Your task to perform on an android device: snooze an email in the gmail app Image 0: 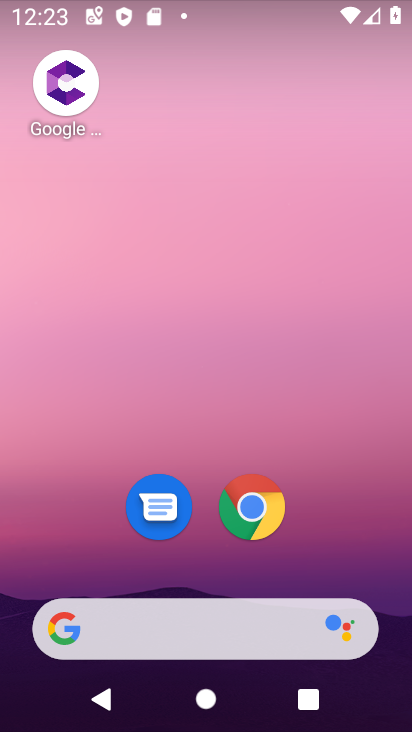
Step 0: drag from (209, 566) to (166, 143)
Your task to perform on an android device: snooze an email in the gmail app Image 1: 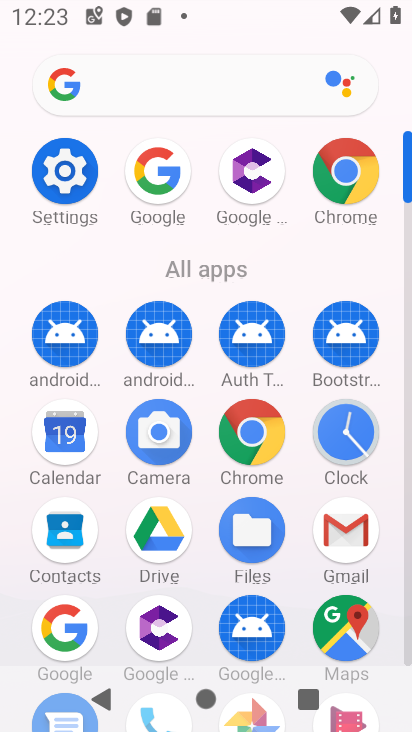
Step 1: click (339, 525)
Your task to perform on an android device: snooze an email in the gmail app Image 2: 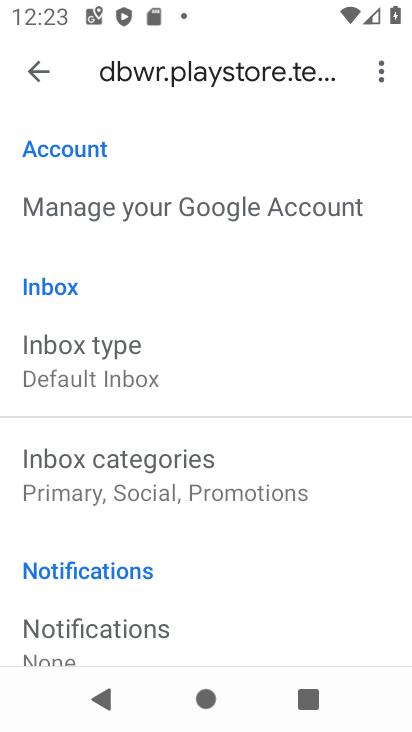
Step 2: click (25, 69)
Your task to perform on an android device: snooze an email in the gmail app Image 3: 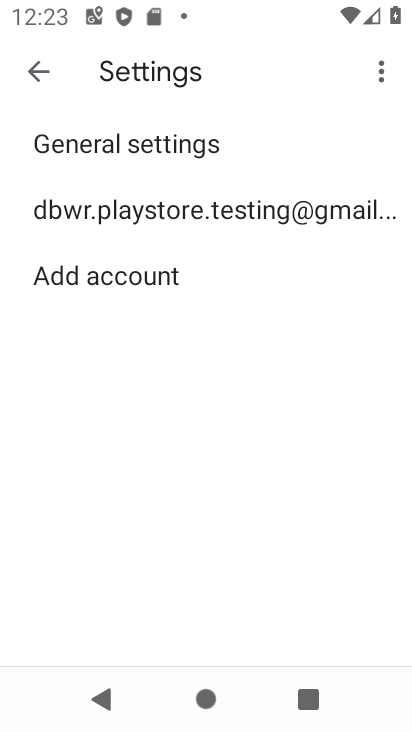
Step 3: click (46, 69)
Your task to perform on an android device: snooze an email in the gmail app Image 4: 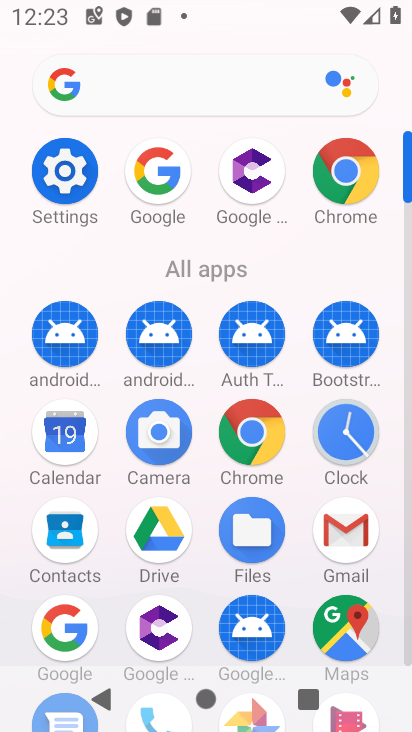
Step 4: click (348, 516)
Your task to perform on an android device: snooze an email in the gmail app Image 5: 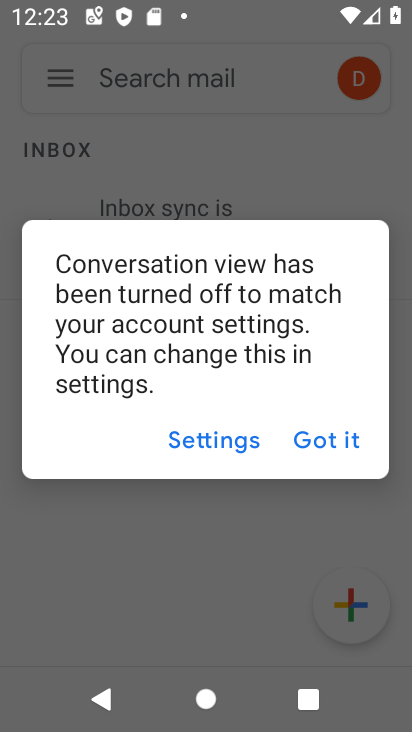
Step 5: click (317, 426)
Your task to perform on an android device: snooze an email in the gmail app Image 6: 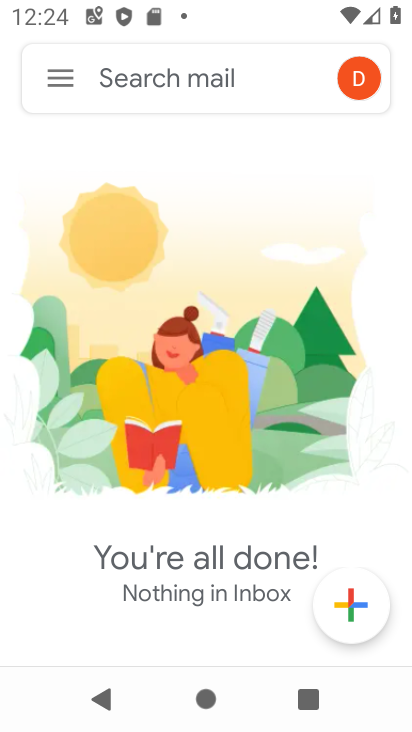
Step 6: click (54, 82)
Your task to perform on an android device: snooze an email in the gmail app Image 7: 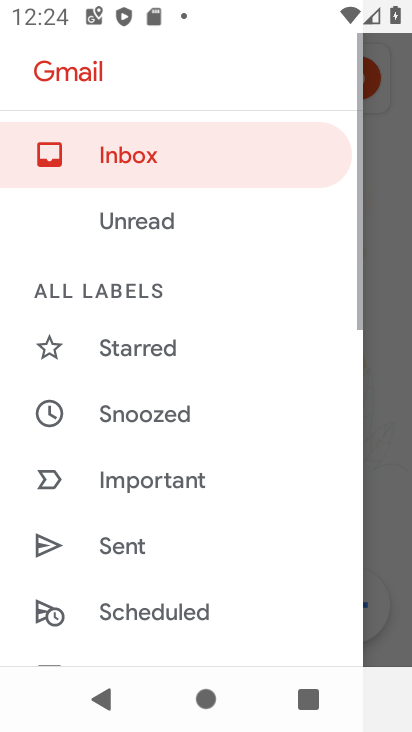
Step 7: drag from (182, 561) to (178, 159)
Your task to perform on an android device: snooze an email in the gmail app Image 8: 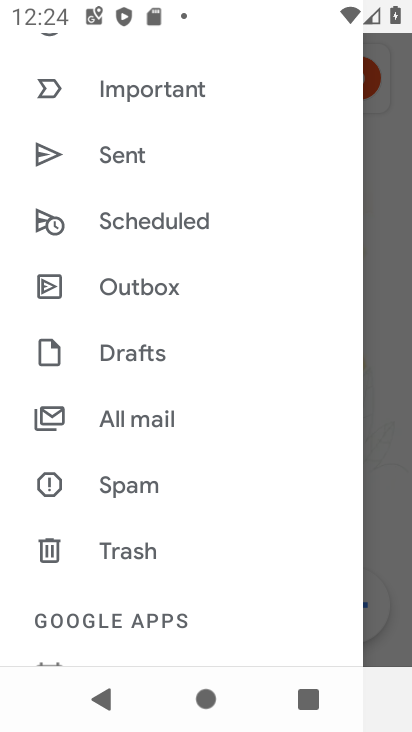
Step 8: click (161, 435)
Your task to perform on an android device: snooze an email in the gmail app Image 9: 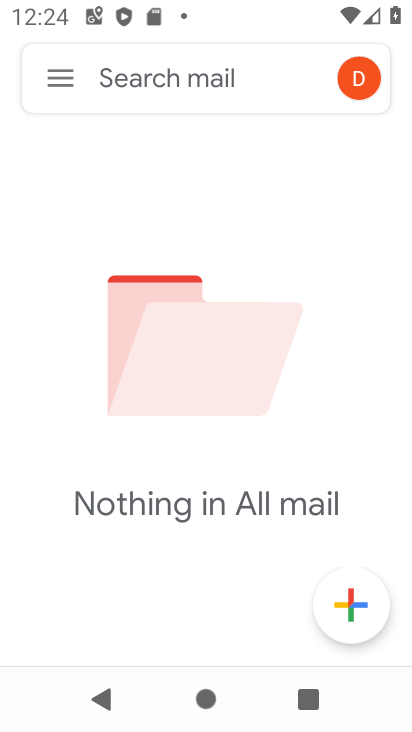
Step 9: task complete